Your task to perform on an android device: install app "Grab" Image 0: 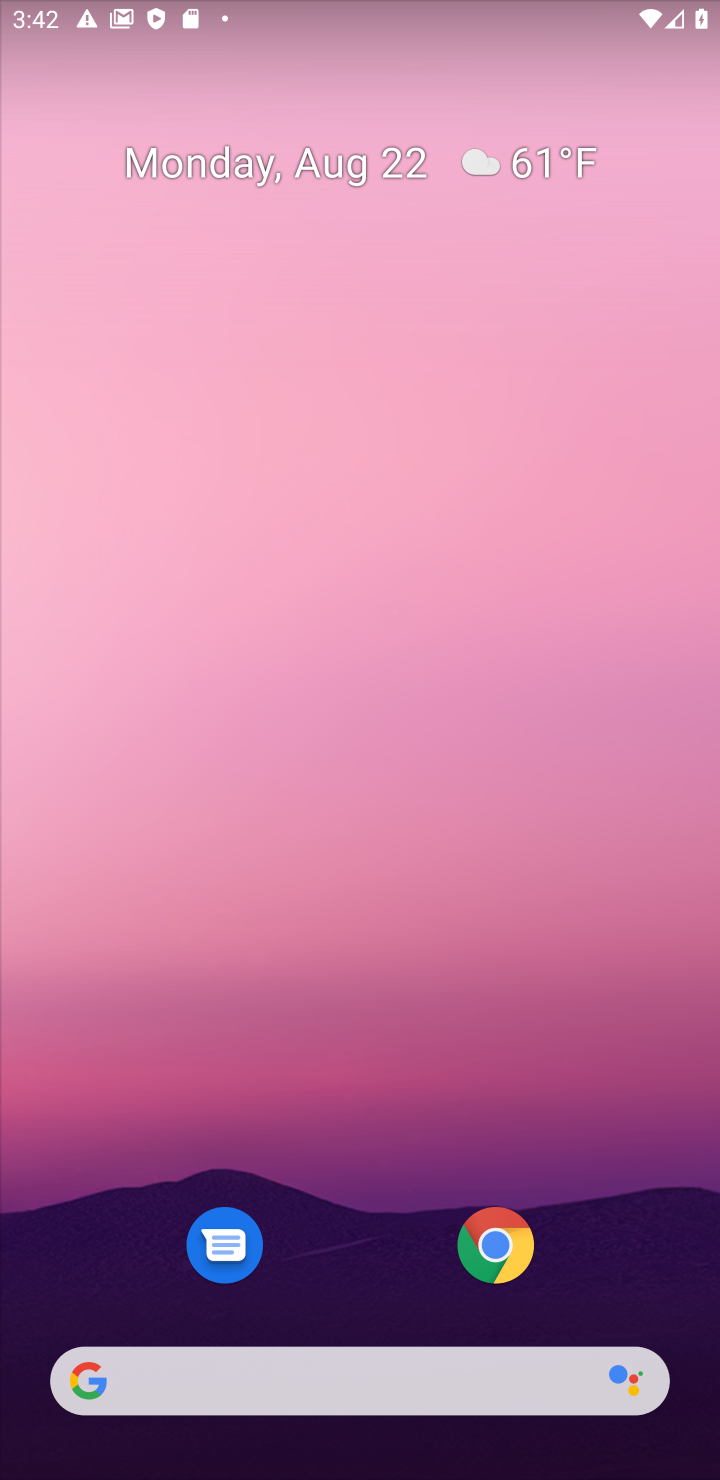
Step 0: press home button
Your task to perform on an android device: install app "Grab" Image 1: 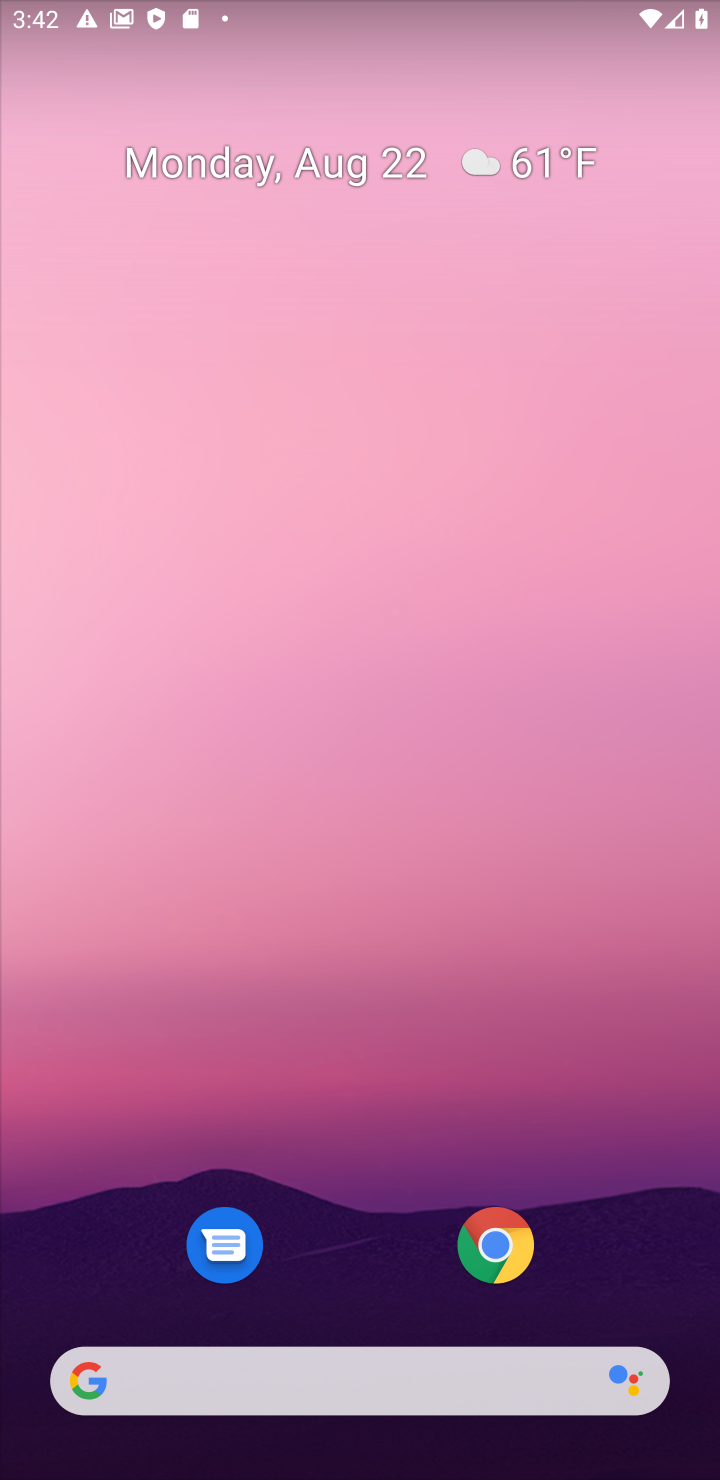
Step 1: drag from (611, 1239) to (608, 98)
Your task to perform on an android device: install app "Grab" Image 2: 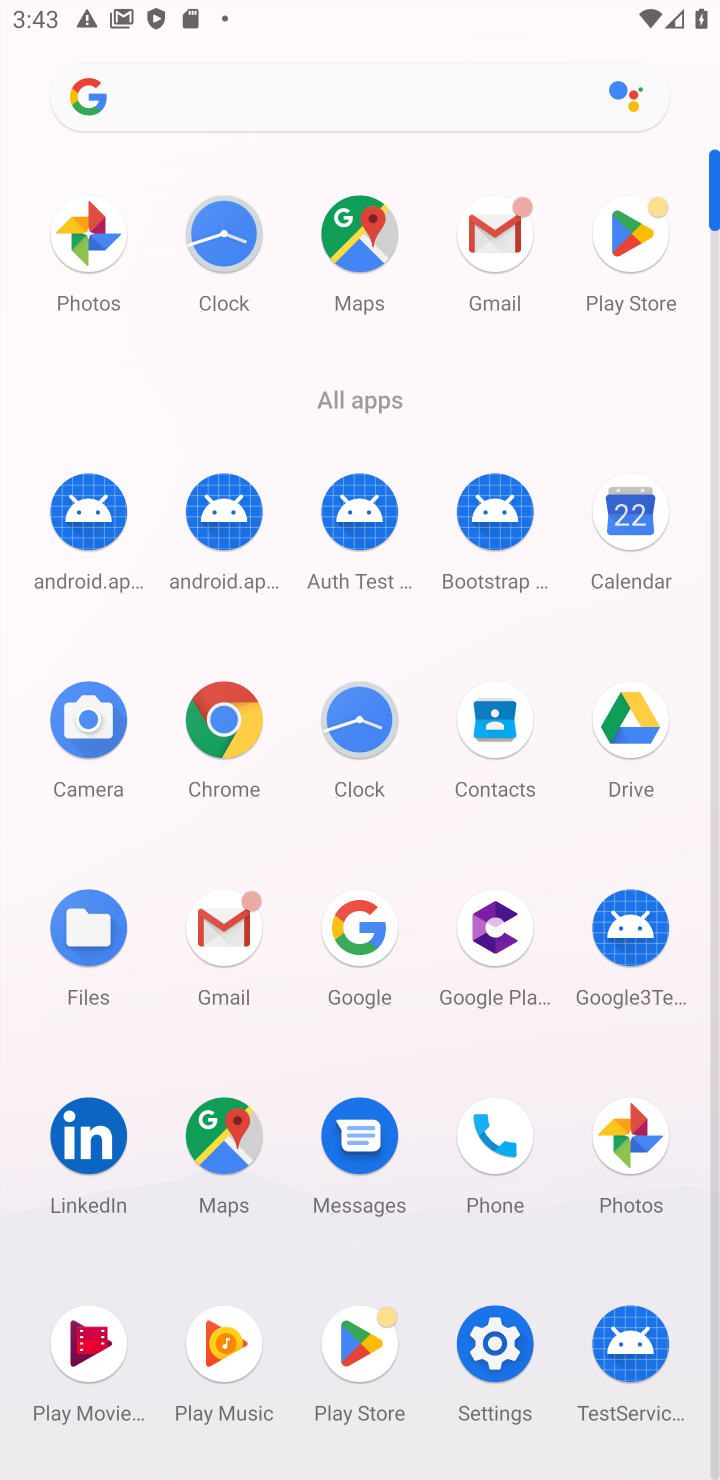
Step 2: click (632, 252)
Your task to perform on an android device: install app "Grab" Image 3: 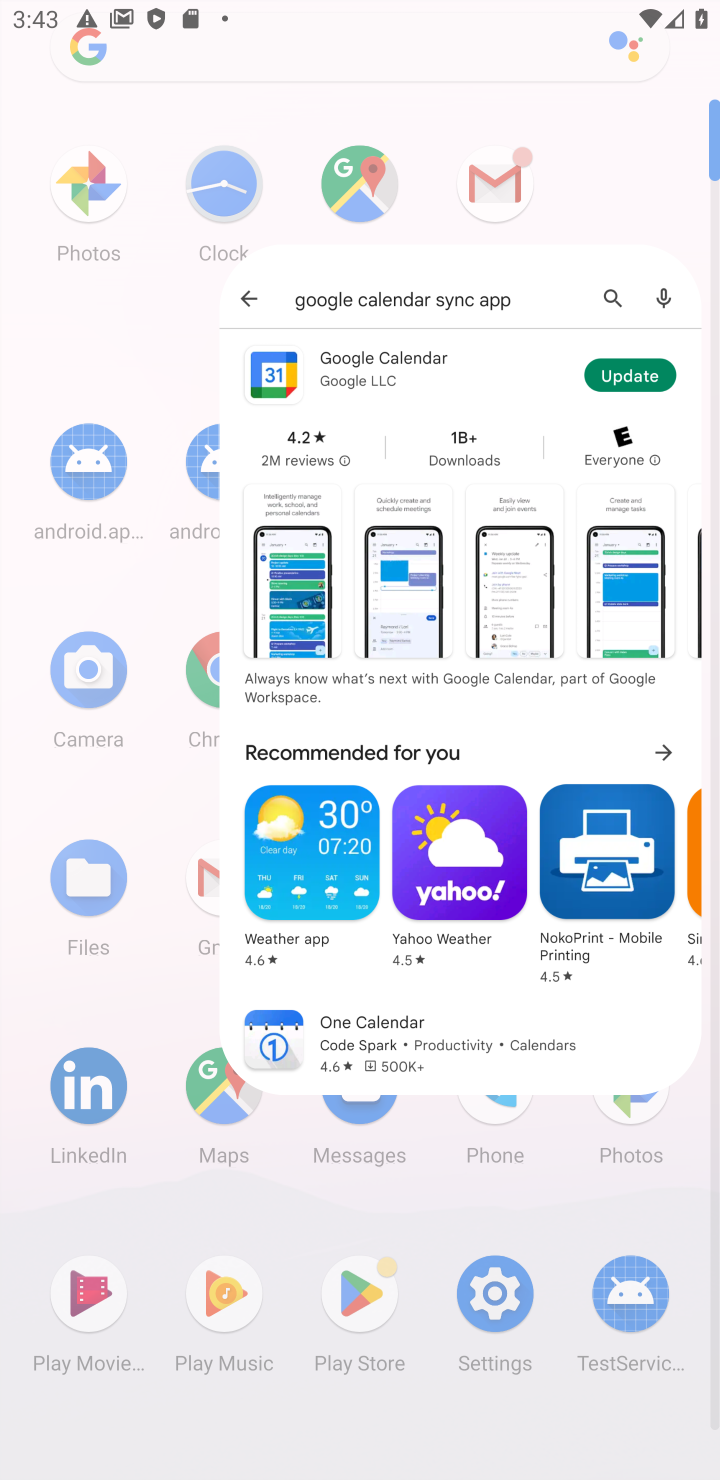
Step 3: click (632, 252)
Your task to perform on an android device: install app "Grab" Image 4: 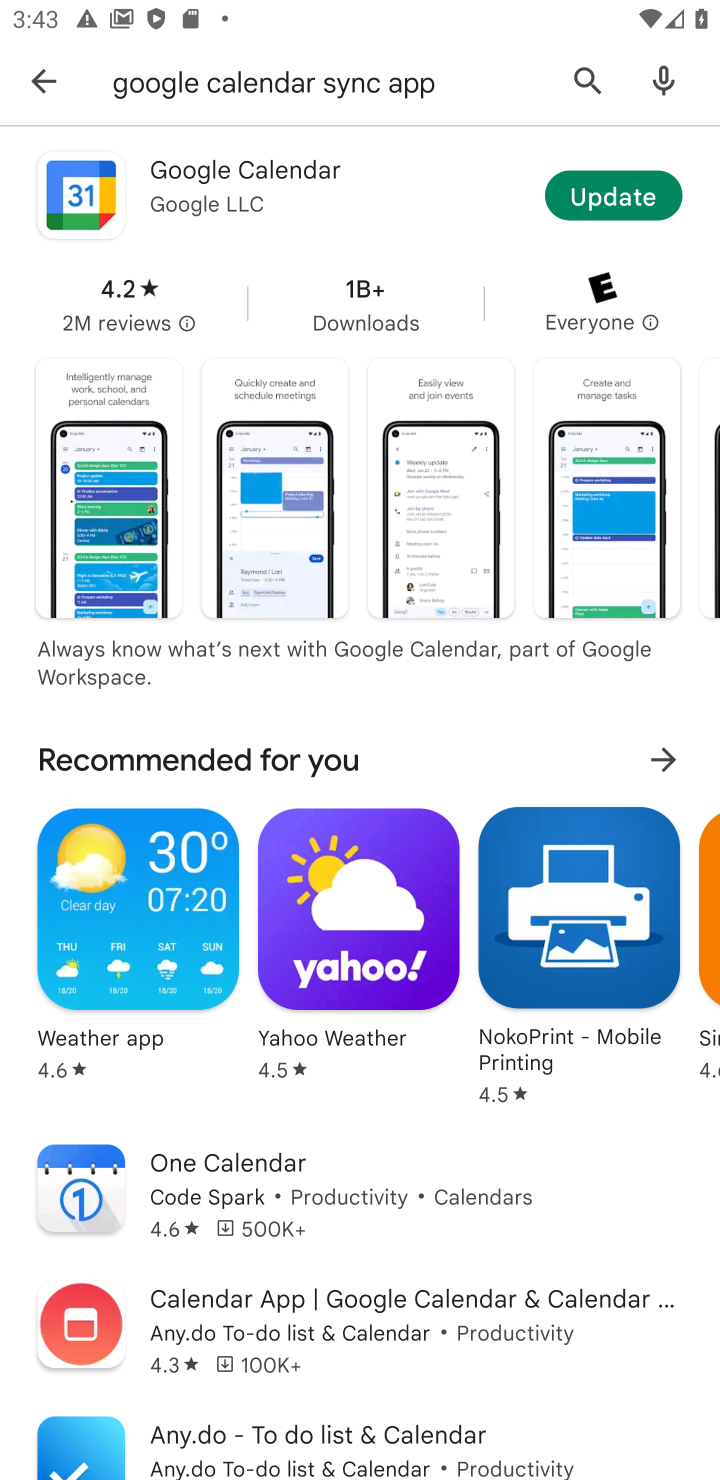
Step 4: press back button
Your task to perform on an android device: install app "Grab" Image 5: 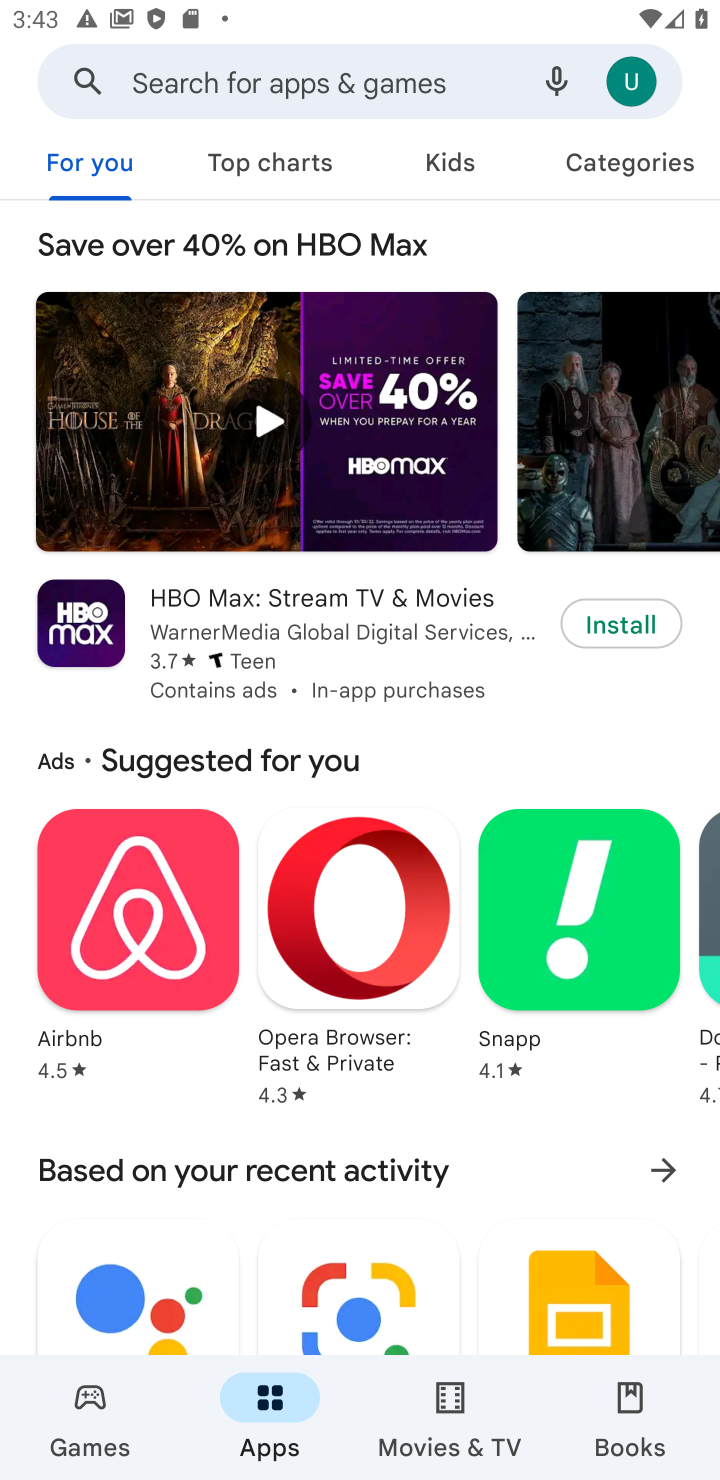
Step 5: click (180, 75)
Your task to perform on an android device: install app "Grab" Image 6: 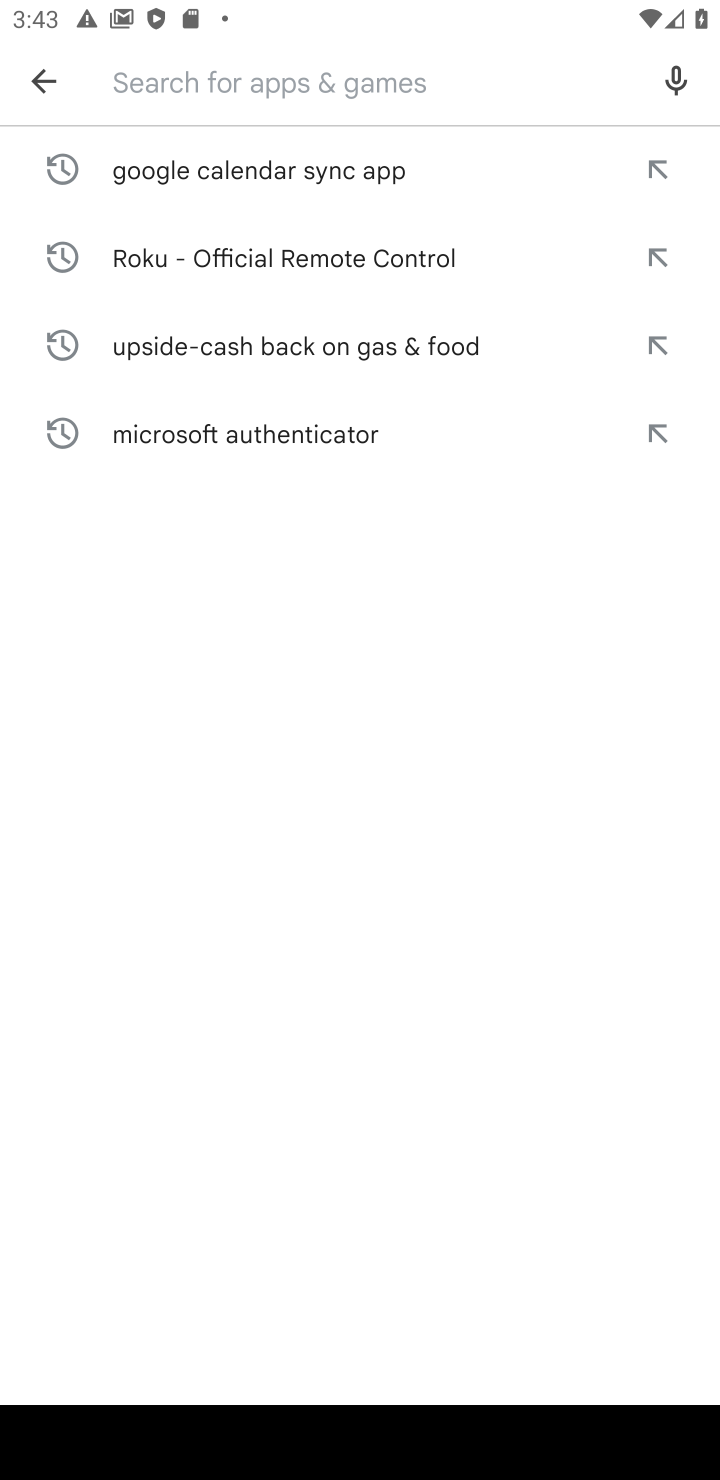
Step 6: type "grab"
Your task to perform on an android device: install app "Grab" Image 7: 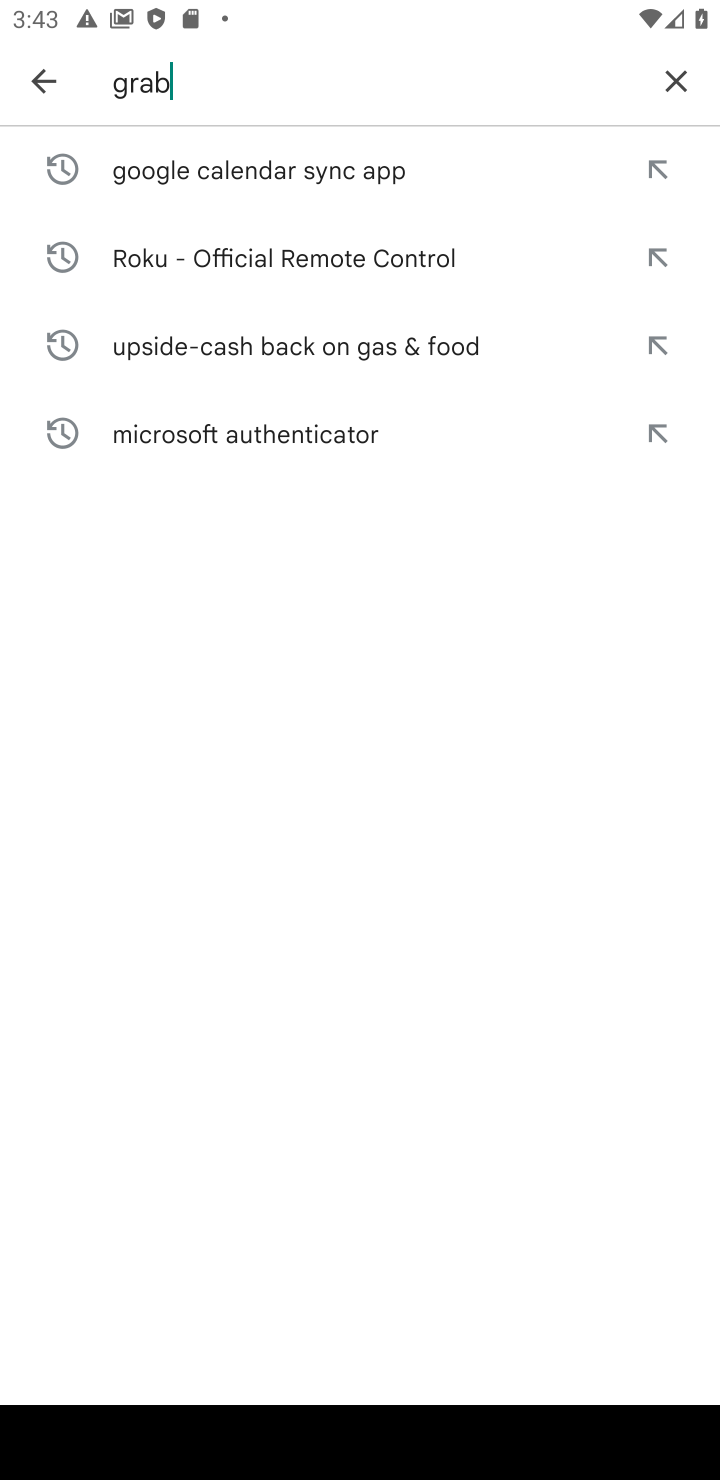
Step 7: press enter
Your task to perform on an android device: install app "Grab" Image 8: 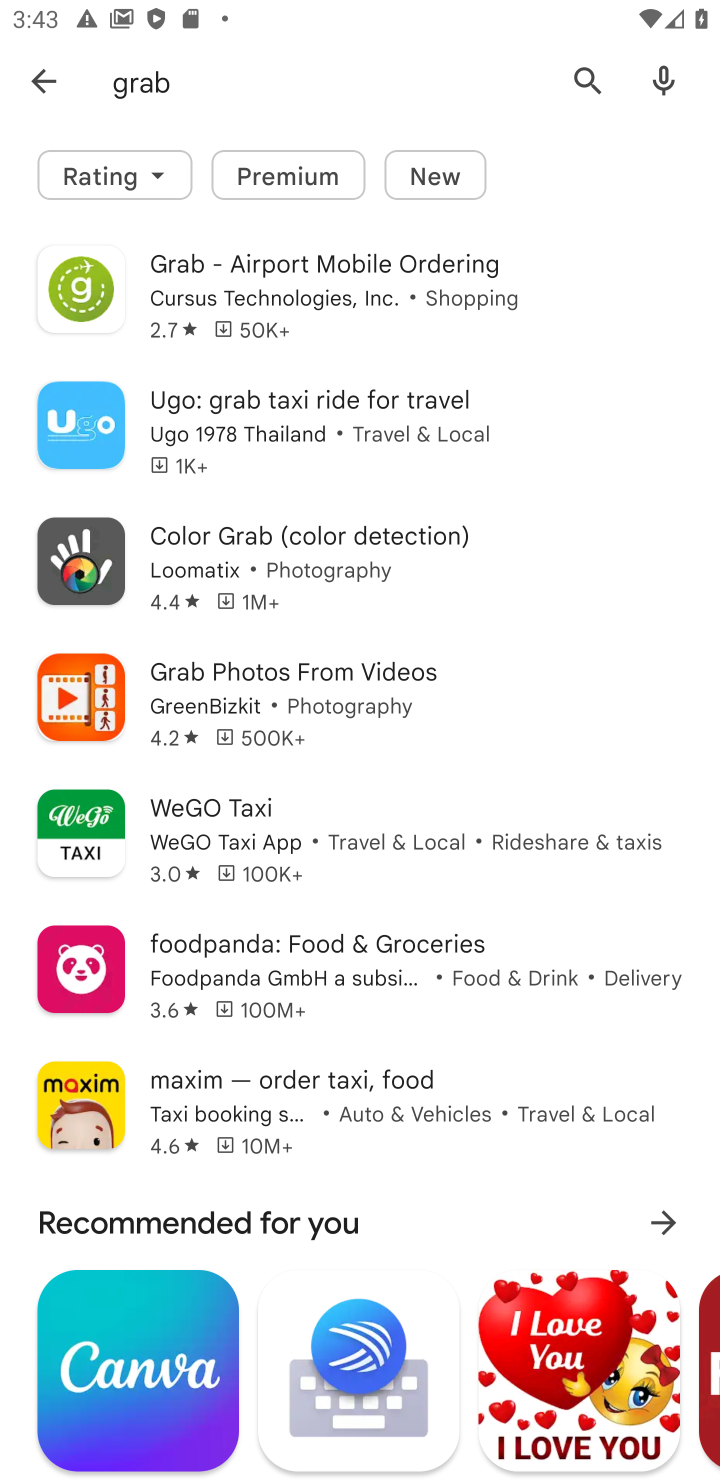
Step 8: task complete